Your task to perform on an android device: empty trash in google photos Image 0: 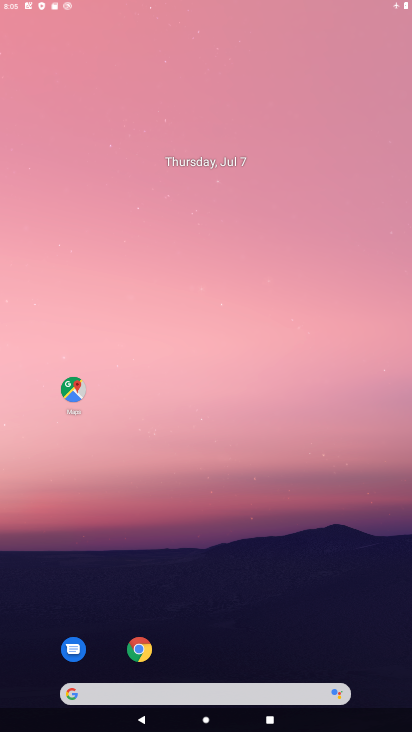
Step 0: click (17, 26)
Your task to perform on an android device: empty trash in google photos Image 1: 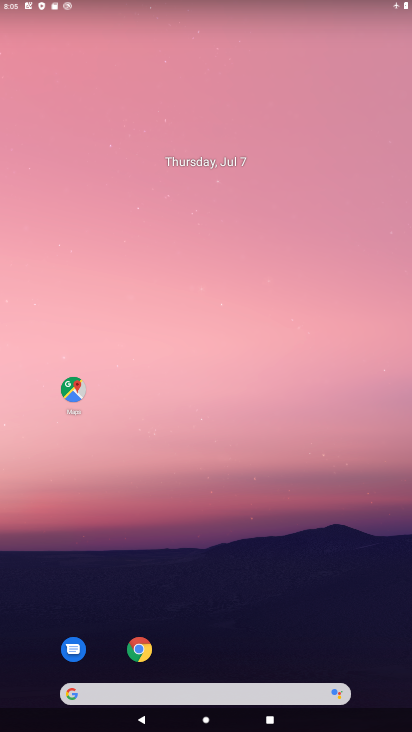
Step 1: drag from (274, 556) to (233, 253)
Your task to perform on an android device: empty trash in google photos Image 2: 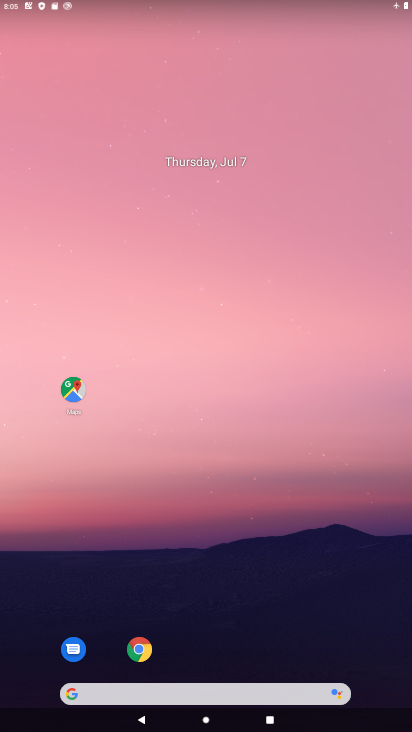
Step 2: drag from (289, 709) to (123, 110)
Your task to perform on an android device: empty trash in google photos Image 3: 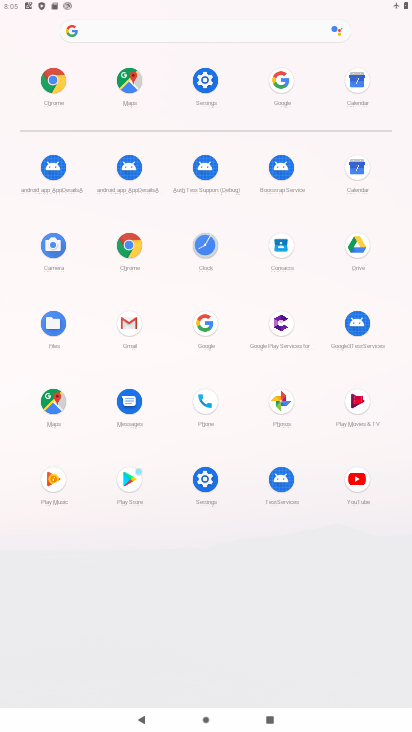
Step 3: click (277, 392)
Your task to perform on an android device: empty trash in google photos Image 4: 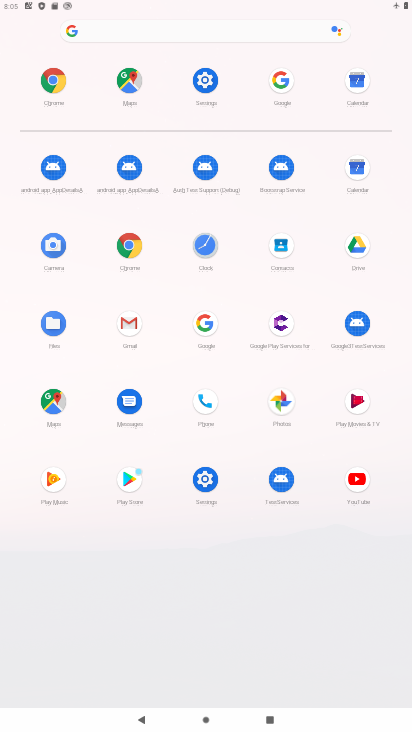
Step 4: click (277, 394)
Your task to perform on an android device: empty trash in google photos Image 5: 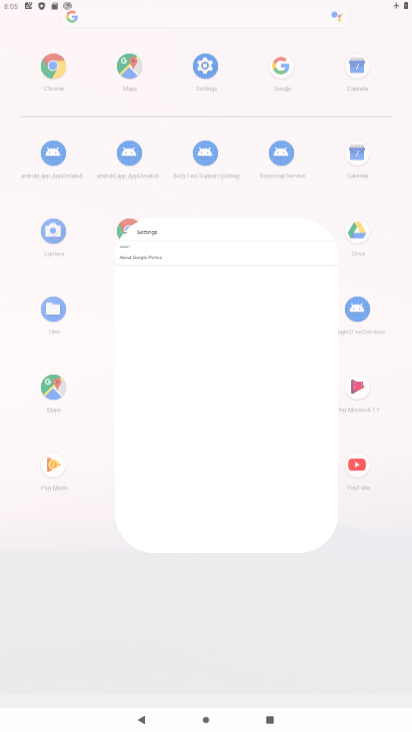
Step 5: click (278, 396)
Your task to perform on an android device: empty trash in google photos Image 6: 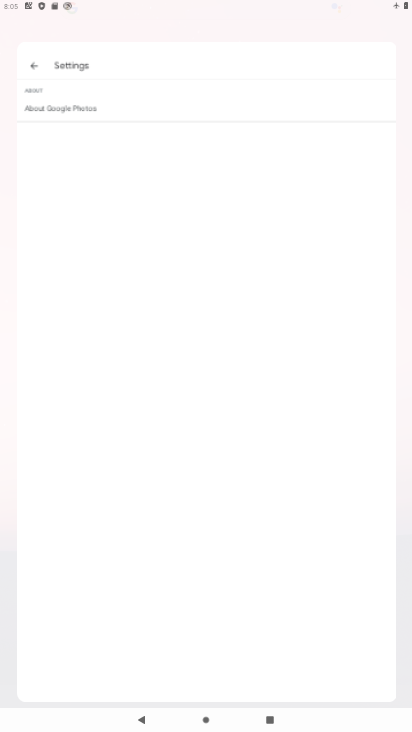
Step 6: click (280, 397)
Your task to perform on an android device: empty trash in google photos Image 7: 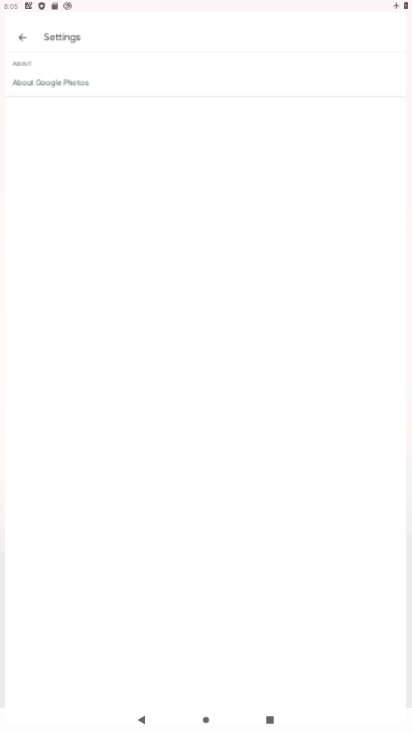
Step 7: click (281, 398)
Your task to perform on an android device: empty trash in google photos Image 8: 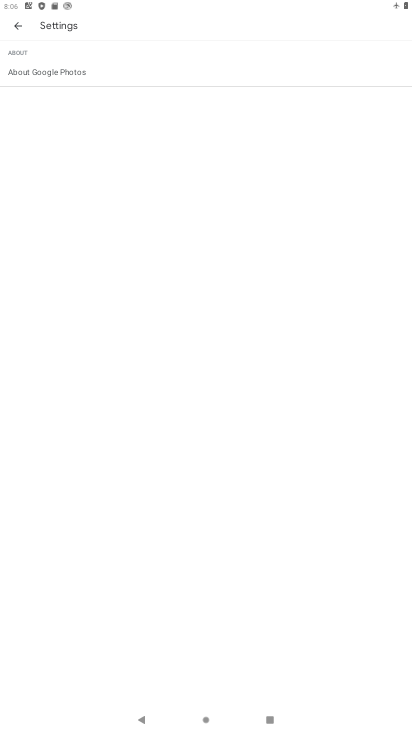
Step 8: click (19, 24)
Your task to perform on an android device: empty trash in google photos Image 9: 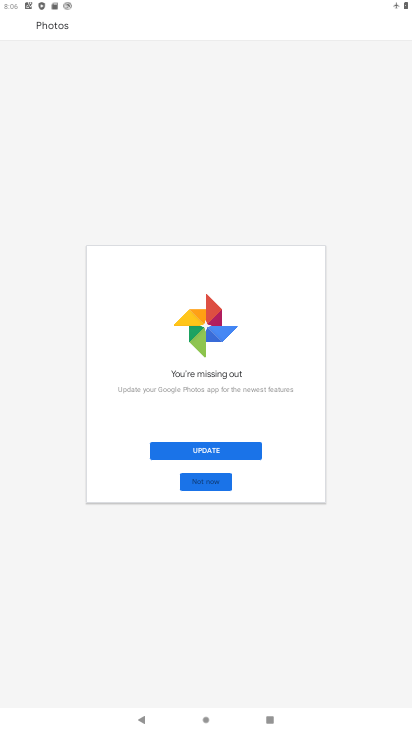
Step 9: click (313, 378)
Your task to perform on an android device: empty trash in google photos Image 10: 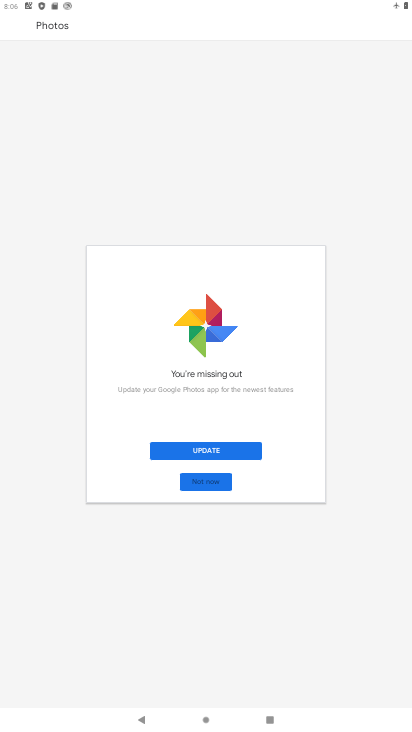
Step 10: click (220, 486)
Your task to perform on an android device: empty trash in google photos Image 11: 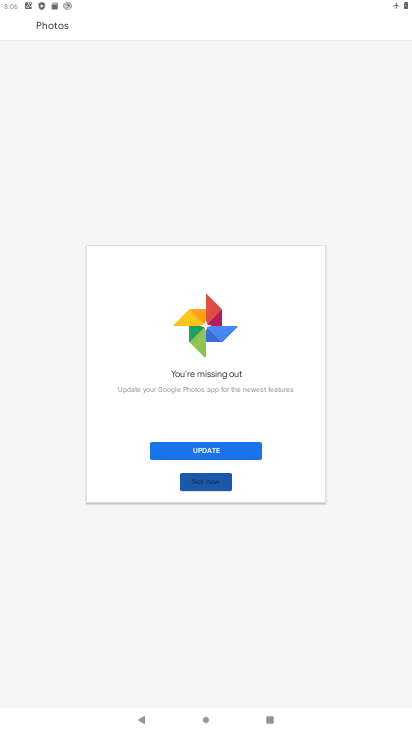
Step 11: click (221, 485)
Your task to perform on an android device: empty trash in google photos Image 12: 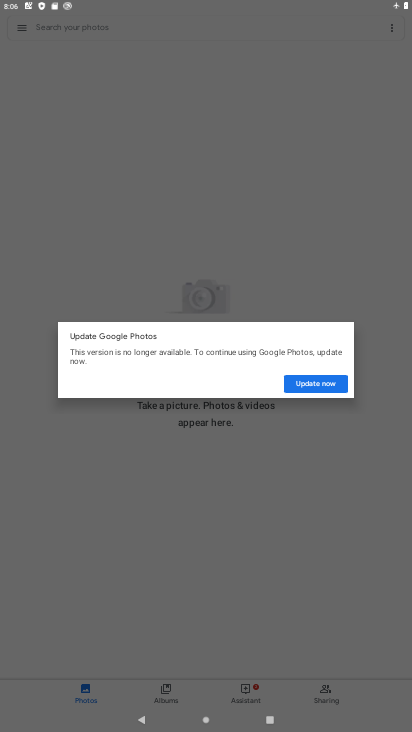
Step 12: click (342, 380)
Your task to perform on an android device: empty trash in google photos Image 13: 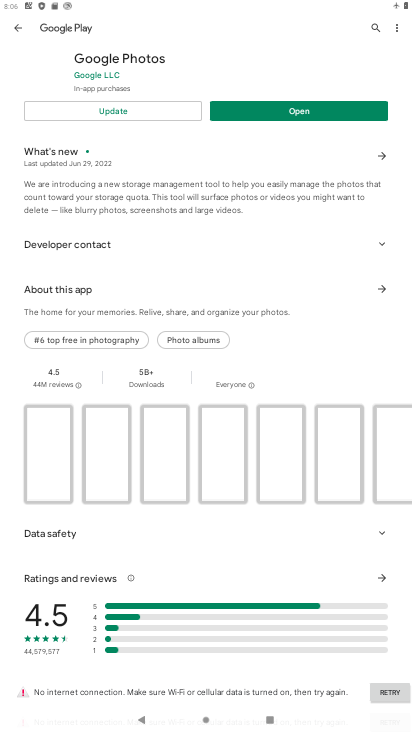
Step 13: click (165, 108)
Your task to perform on an android device: empty trash in google photos Image 14: 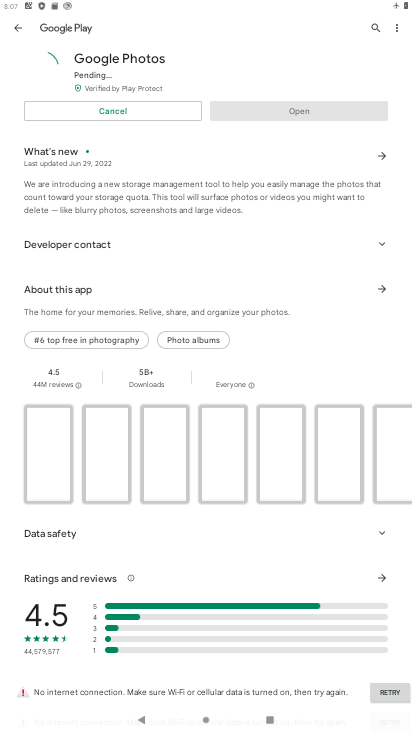
Step 14: task complete